Your task to perform on an android device: Open calendar and show me the fourth week of next month Image 0: 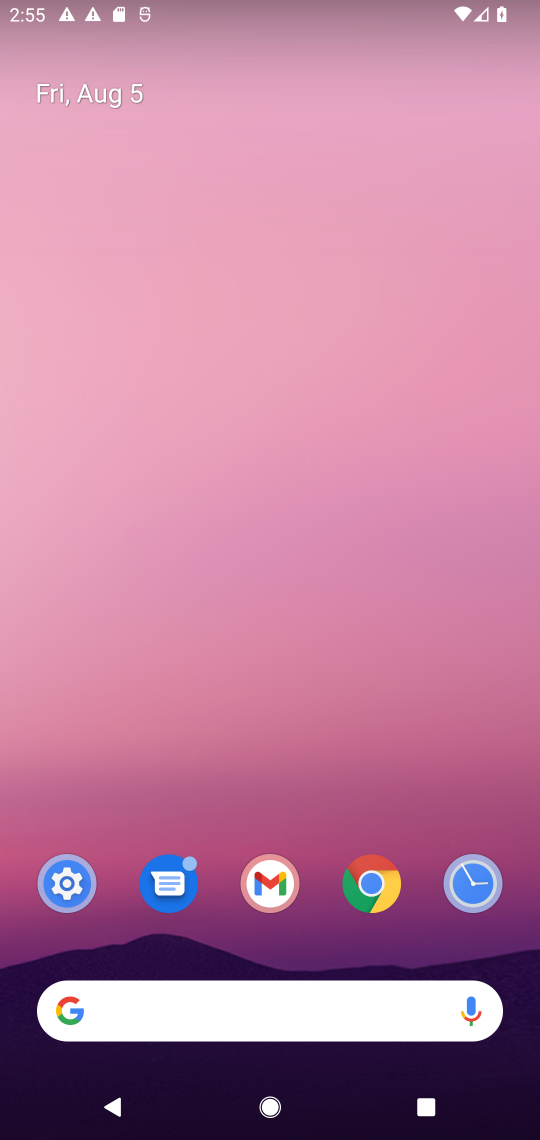
Step 0: press home button
Your task to perform on an android device: Open calendar and show me the fourth week of next month Image 1: 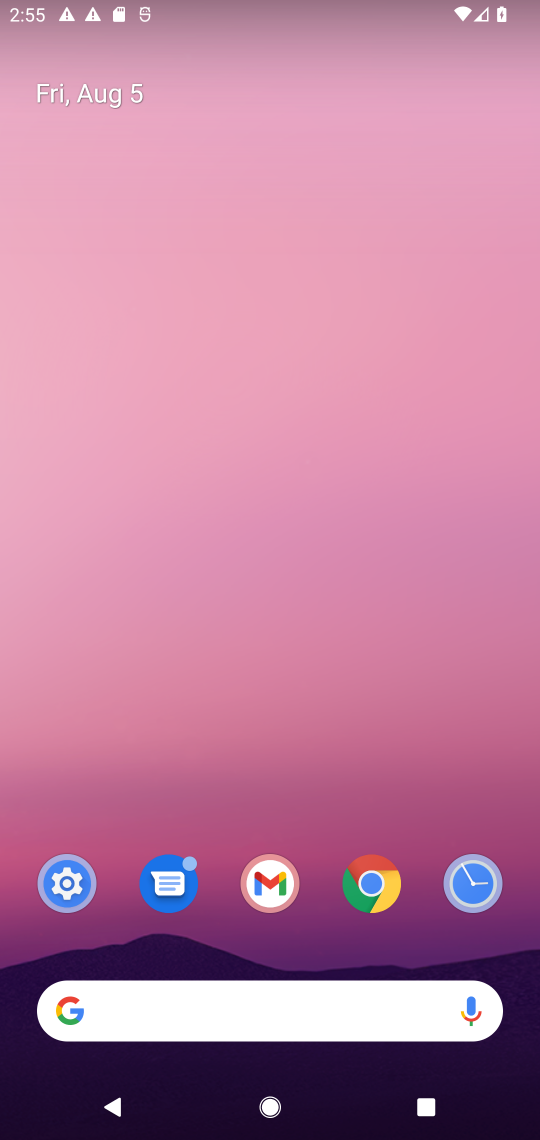
Step 1: drag from (320, 945) to (392, 107)
Your task to perform on an android device: Open calendar and show me the fourth week of next month Image 2: 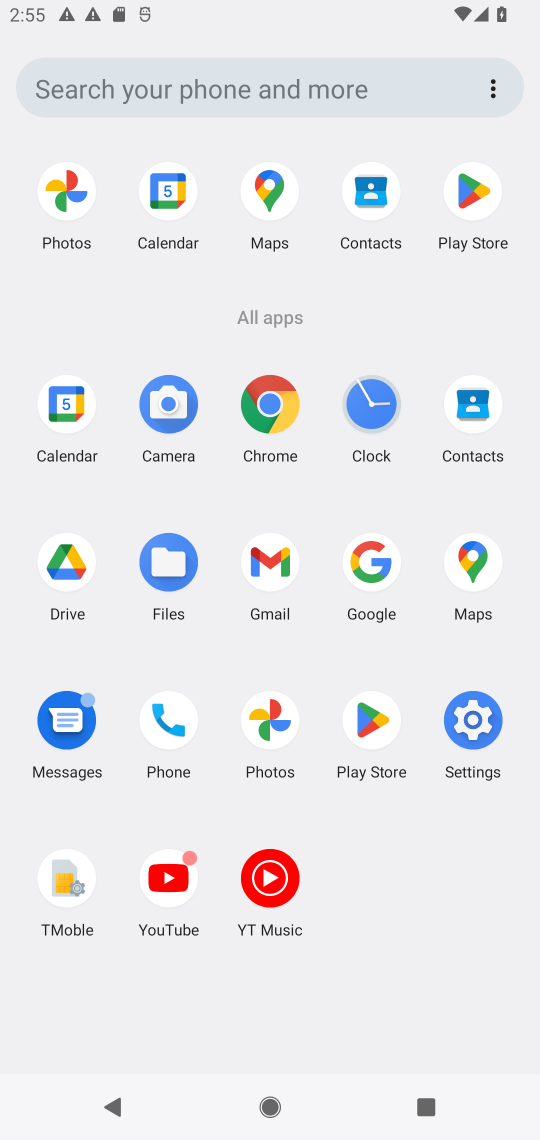
Step 2: click (63, 392)
Your task to perform on an android device: Open calendar and show me the fourth week of next month Image 3: 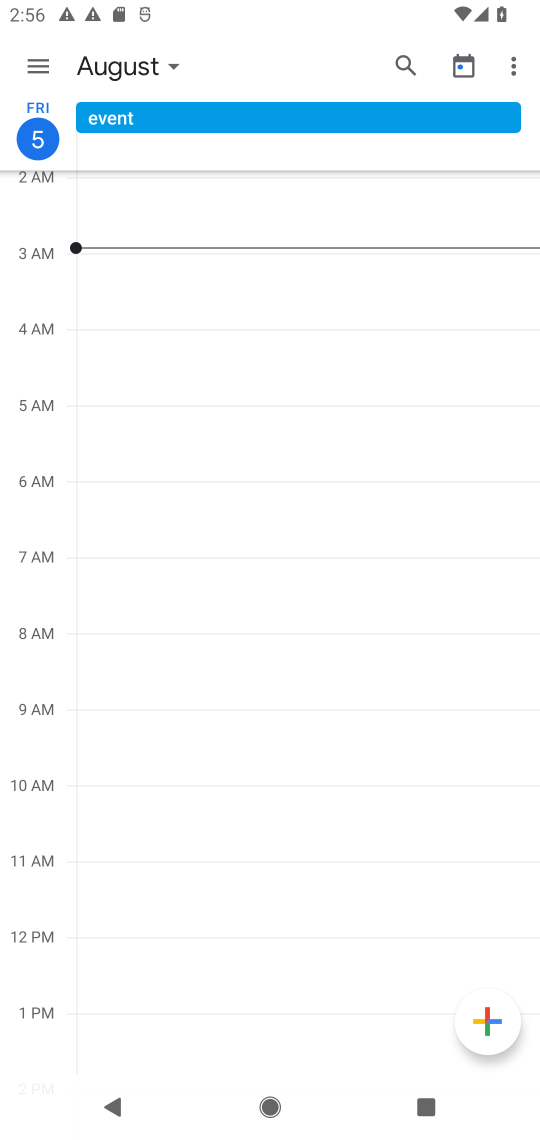
Step 3: click (24, 64)
Your task to perform on an android device: Open calendar and show me the fourth week of next month Image 4: 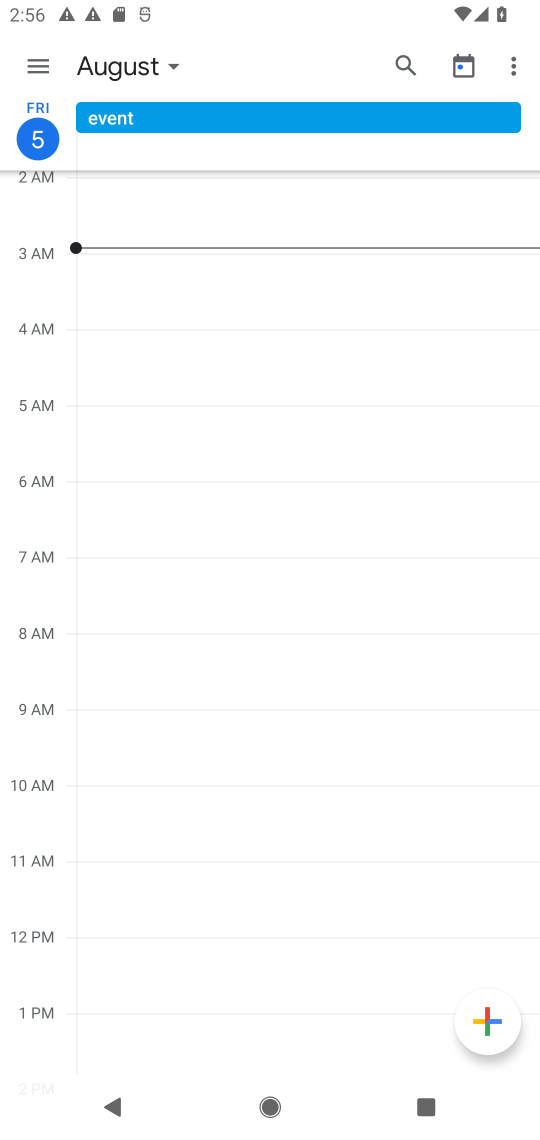
Step 4: click (26, 63)
Your task to perform on an android device: Open calendar and show me the fourth week of next month Image 5: 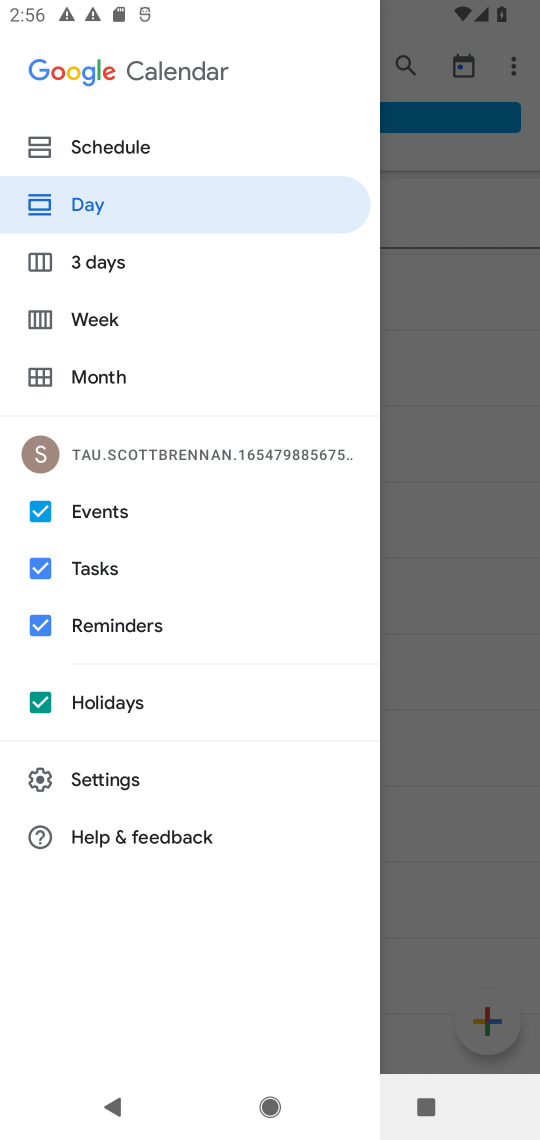
Step 5: click (39, 561)
Your task to perform on an android device: Open calendar and show me the fourth week of next month Image 6: 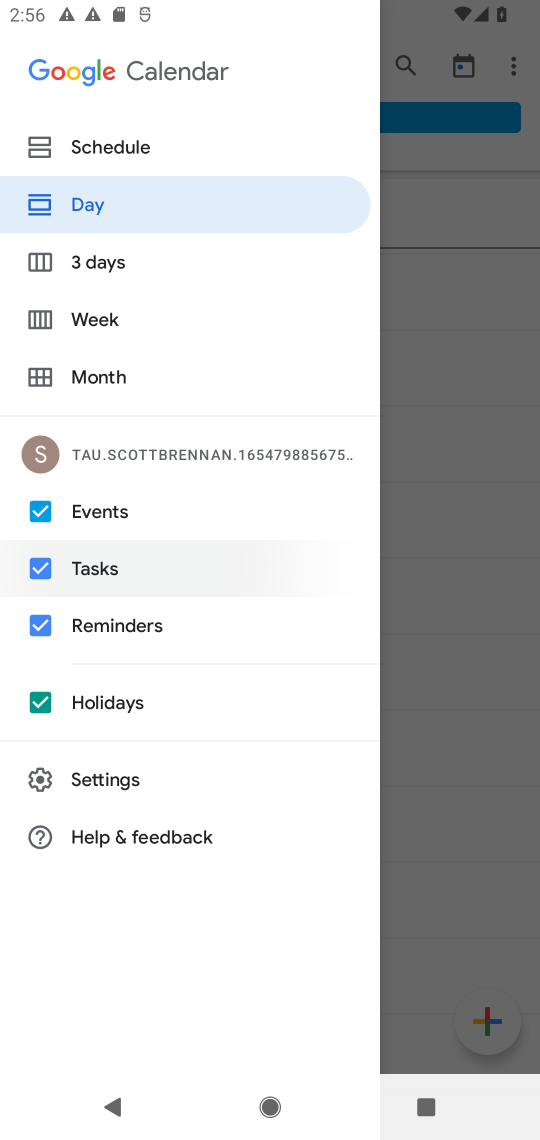
Step 6: click (41, 623)
Your task to perform on an android device: Open calendar and show me the fourth week of next month Image 7: 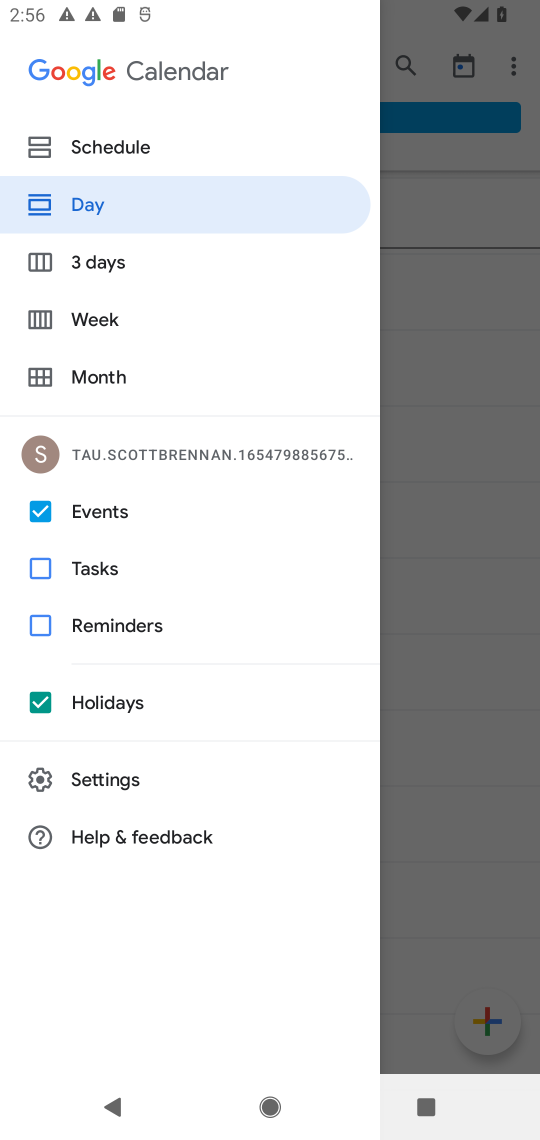
Step 7: click (46, 699)
Your task to perform on an android device: Open calendar and show me the fourth week of next month Image 8: 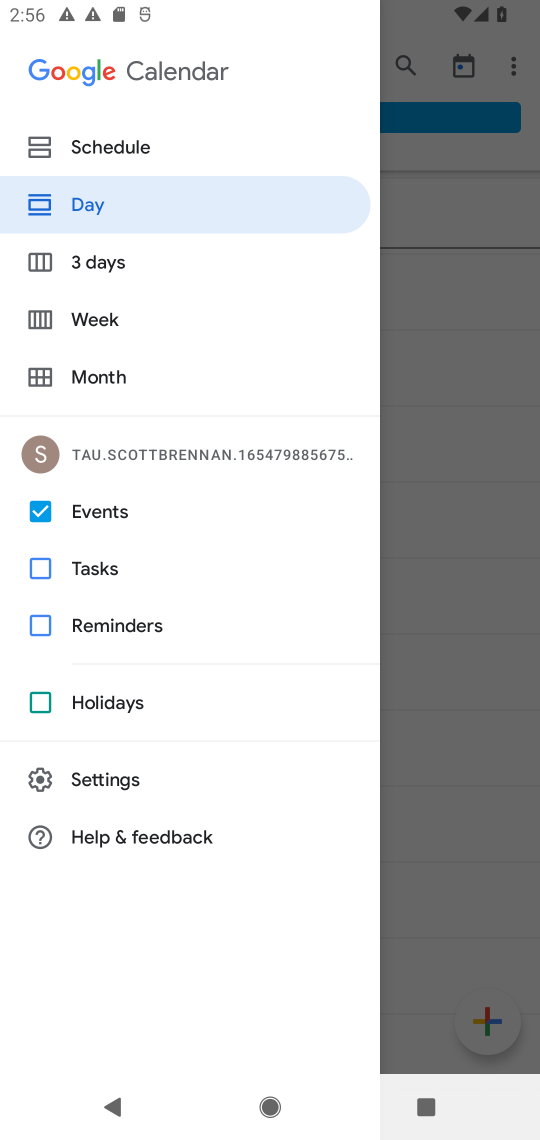
Step 8: click (65, 313)
Your task to perform on an android device: Open calendar and show me the fourth week of next month Image 9: 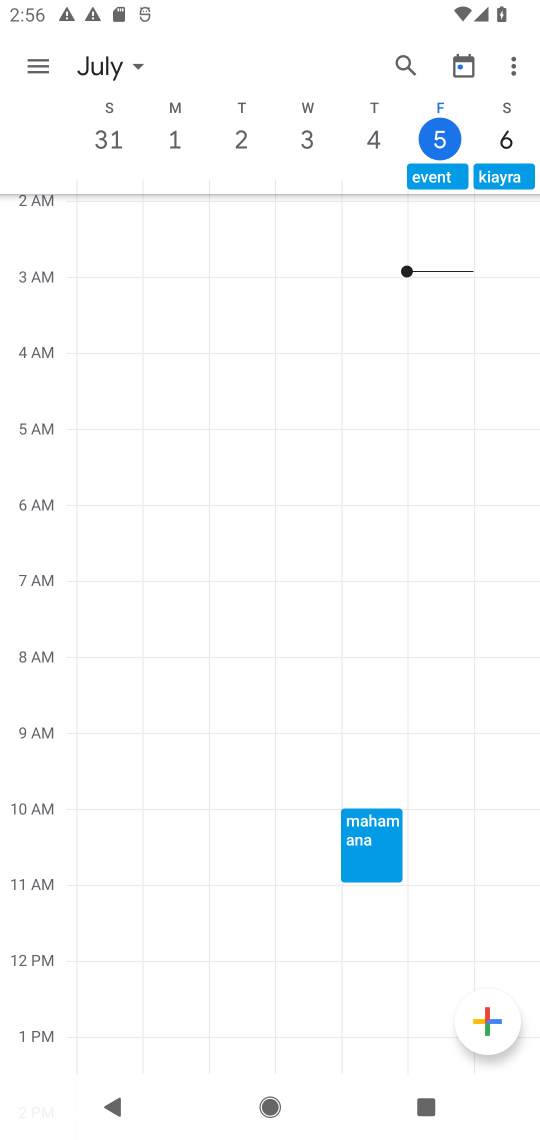
Step 9: click (136, 65)
Your task to perform on an android device: Open calendar and show me the fourth week of next month Image 10: 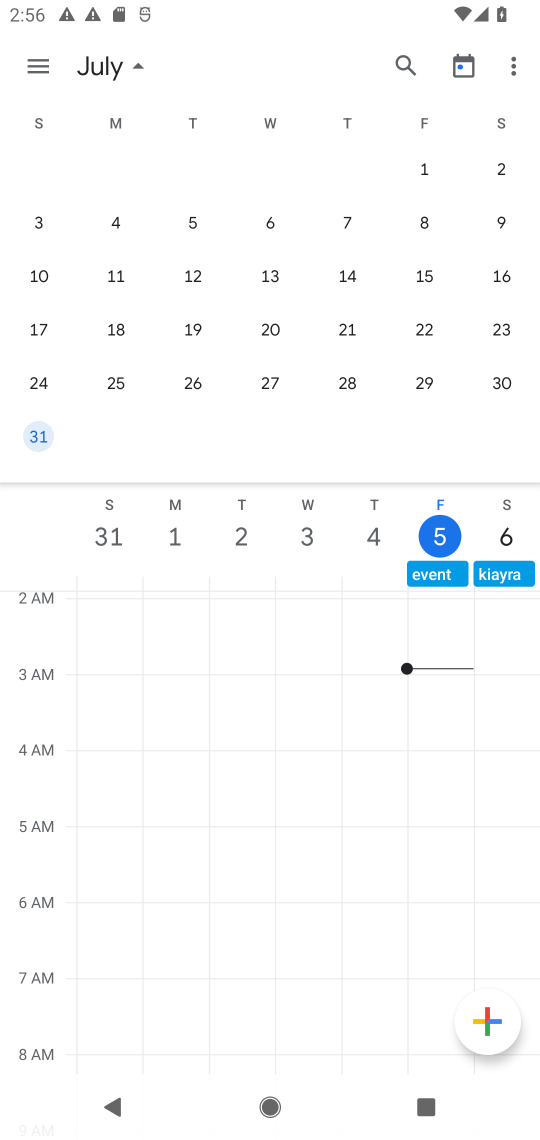
Step 10: drag from (463, 282) to (0, 279)
Your task to perform on an android device: Open calendar and show me the fourth week of next month Image 11: 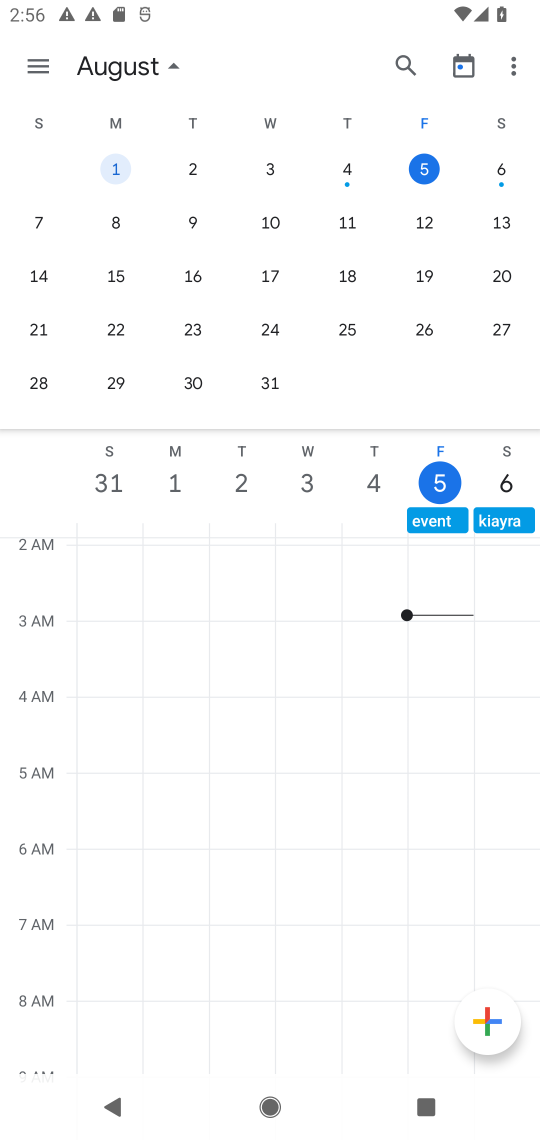
Step 11: drag from (503, 251) to (6, 262)
Your task to perform on an android device: Open calendar and show me the fourth week of next month Image 12: 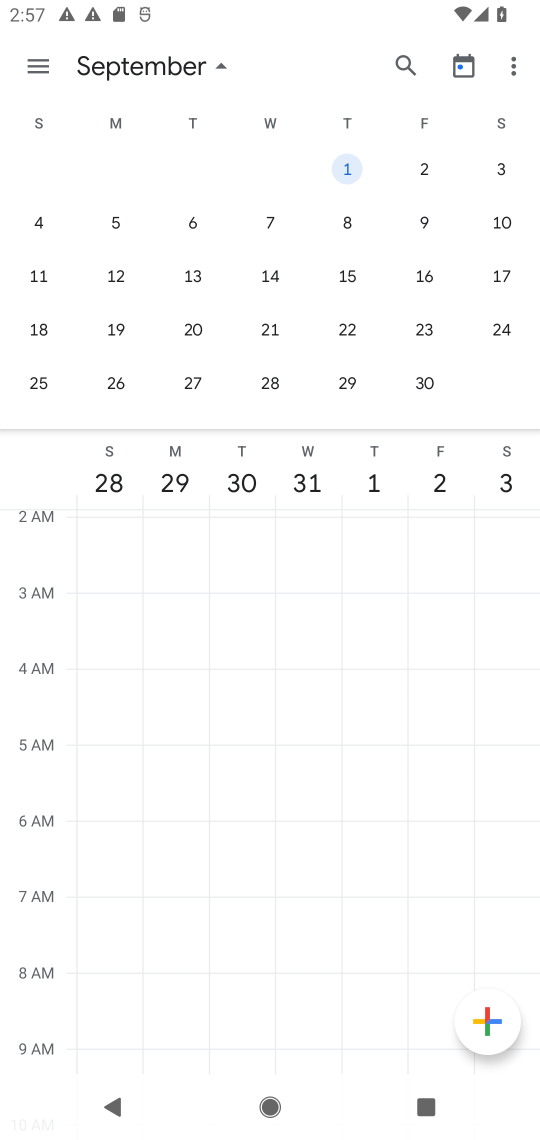
Step 12: click (41, 386)
Your task to perform on an android device: Open calendar and show me the fourth week of next month Image 13: 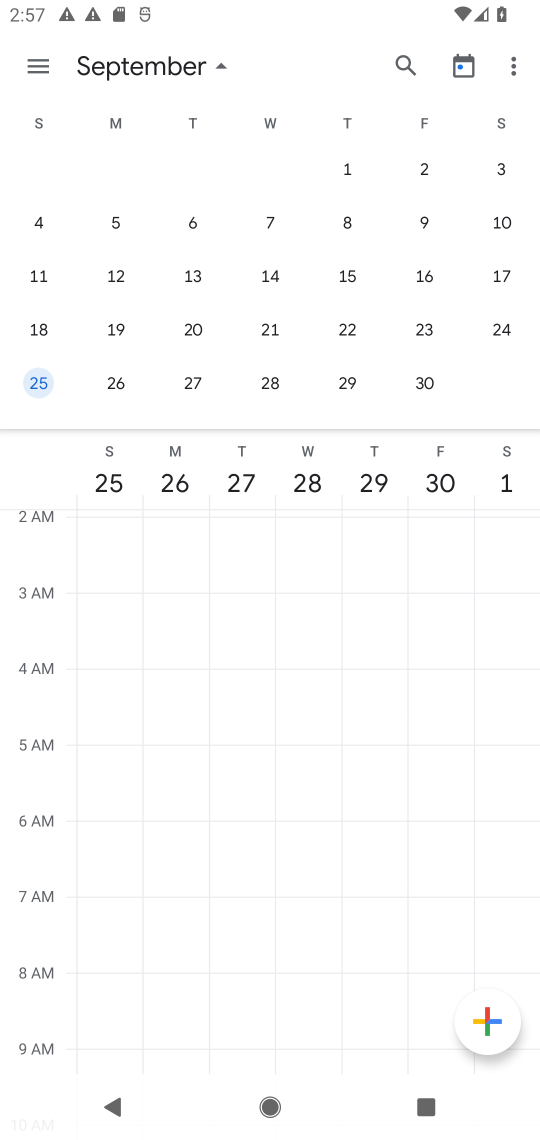
Step 13: task complete